Your task to perform on an android device: change your default location settings in chrome Image 0: 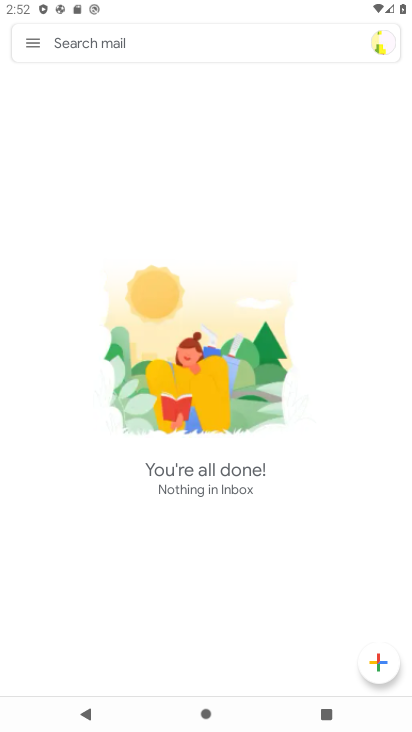
Step 0: press home button
Your task to perform on an android device: change your default location settings in chrome Image 1: 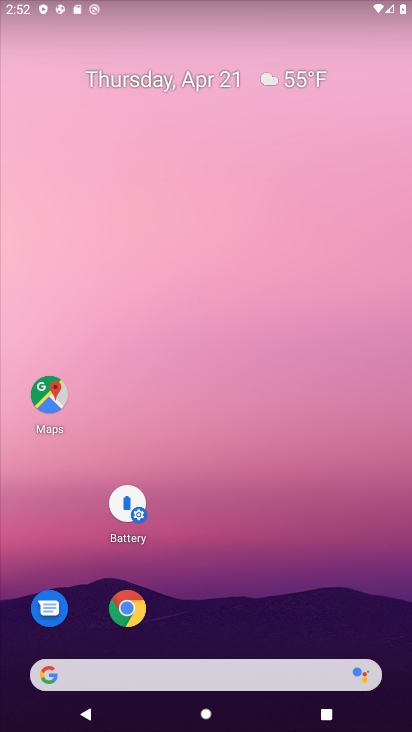
Step 1: drag from (277, 554) to (272, 124)
Your task to perform on an android device: change your default location settings in chrome Image 2: 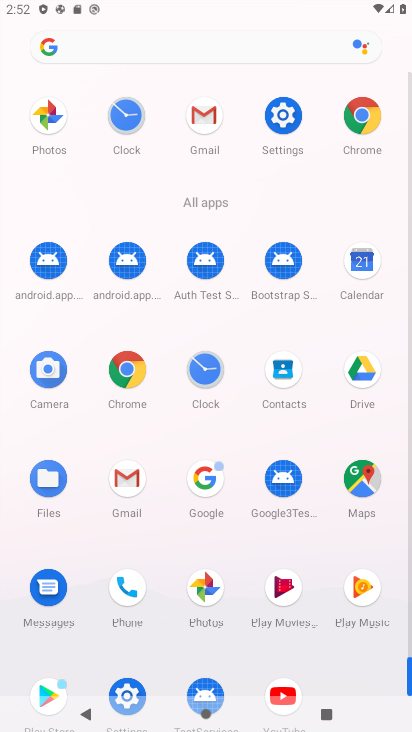
Step 2: click (365, 112)
Your task to perform on an android device: change your default location settings in chrome Image 3: 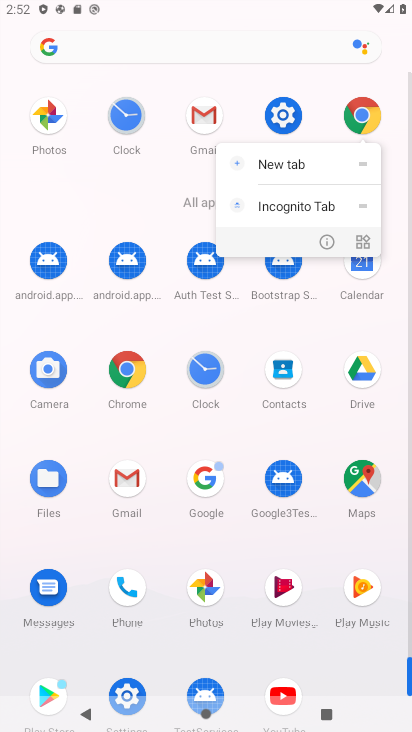
Step 3: click (365, 111)
Your task to perform on an android device: change your default location settings in chrome Image 4: 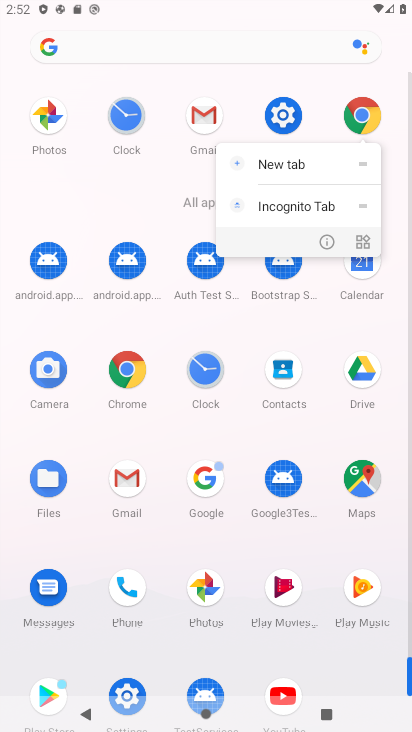
Step 4: click (365, 111)
Your task to perform on an android device: change your default location settings in chrome Image 5: 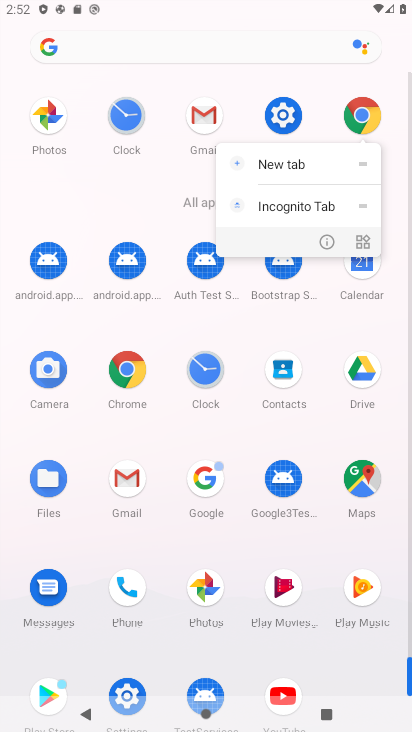
Step 5: click (365, 111)
Your task to perform on an android device: change your default location settings in chrome Image 6: 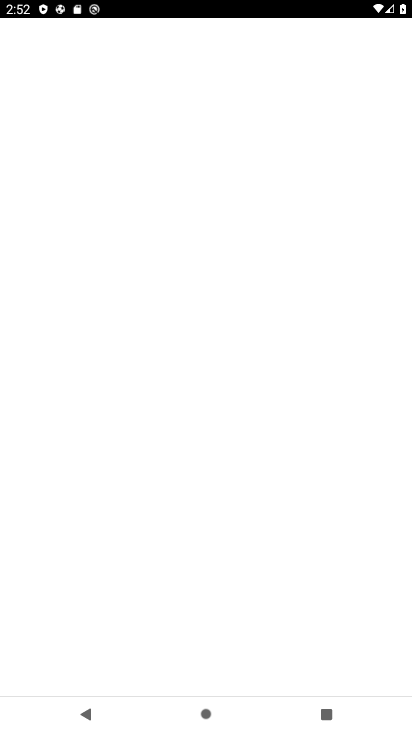
Step 6: click (365, 121)
Your task to perform on an android device: change your default location settings in chrome Image 7: 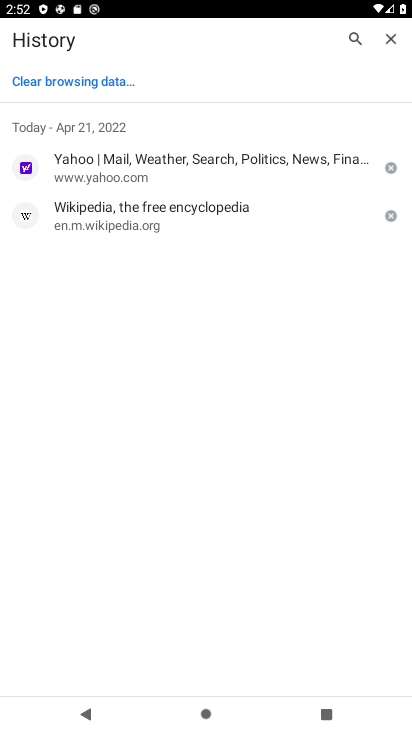
Step 7: click (384, 48)
Your task to perform on an android device: change your default location settings in chrome Image 8: 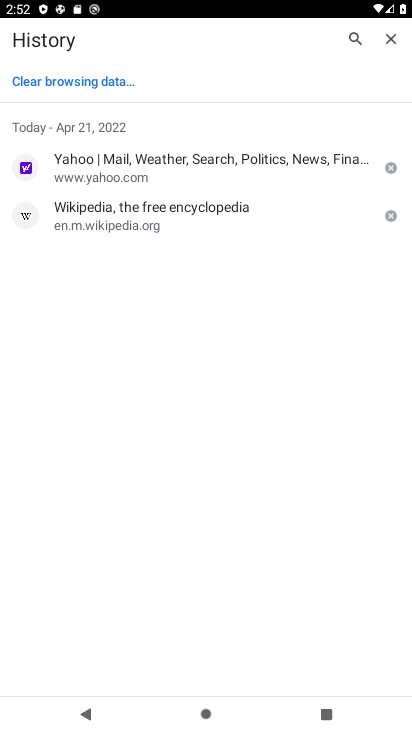
Step 8: click (393, 40)
Your task to perform on an android device: change your default location settings in chrome Image 9: 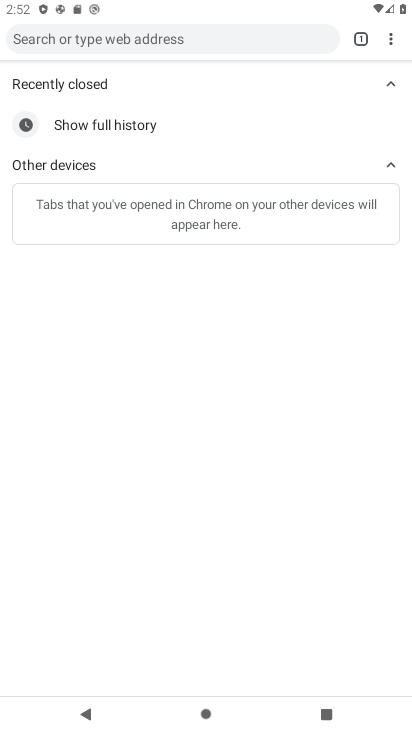
Step 9: click (392, 43)
Your task to perform on an android device: change your default location settings in chrome Image 10: 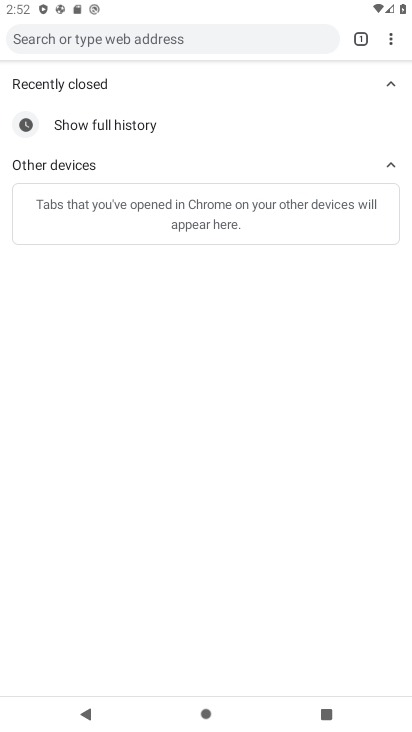
Step 10: drag from (389, 48) to (289, 335)
Your task to perform on an android device: change your default location settings in chrome Image 11: 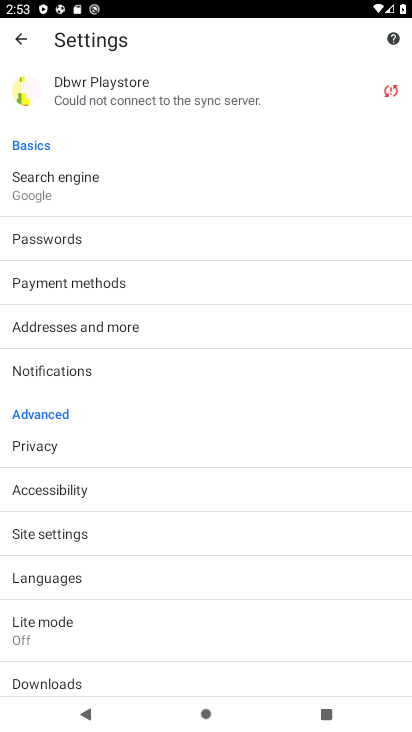
Step 11: drag from (232, 636) to (195, 154)
Your task to perform on an android device: change your default location settings in chrome Image 12: 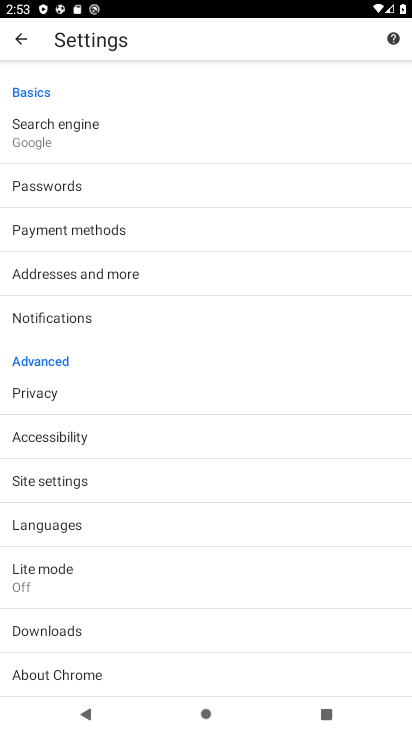
Step 12: drag from (93, 629) to (84, 248)
Your task to perform on an android device: change your default location settings in chrome Image 13: 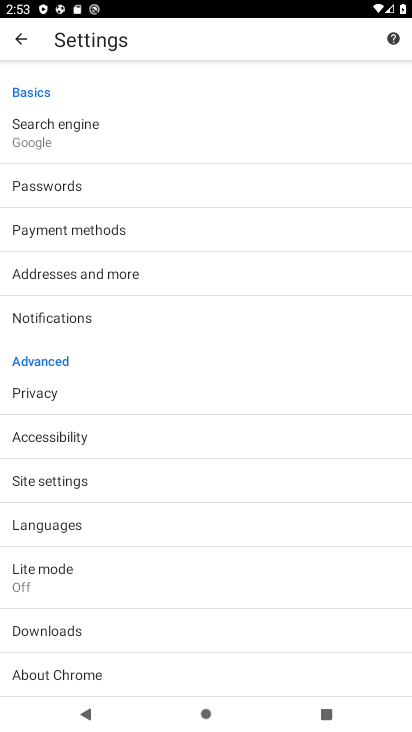
Step 13: click (87, 478)
Your task to perform on an android device: change your default location settings in chrome Image 14: 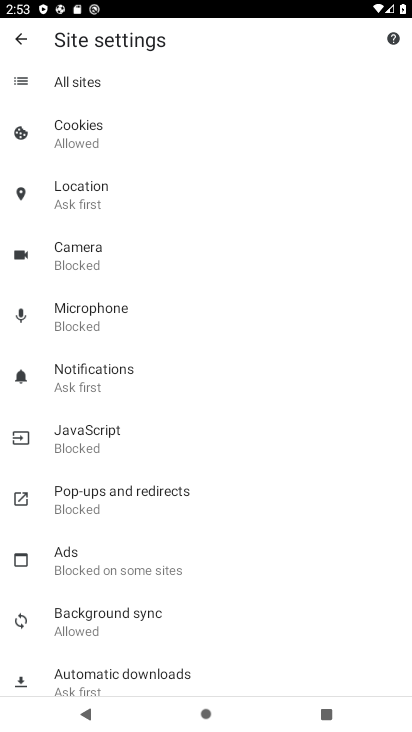
Step 14: drag from (172, 618) to (107, 227)
Your task to perform on an android device: change your default location settings in chrome Image 15: 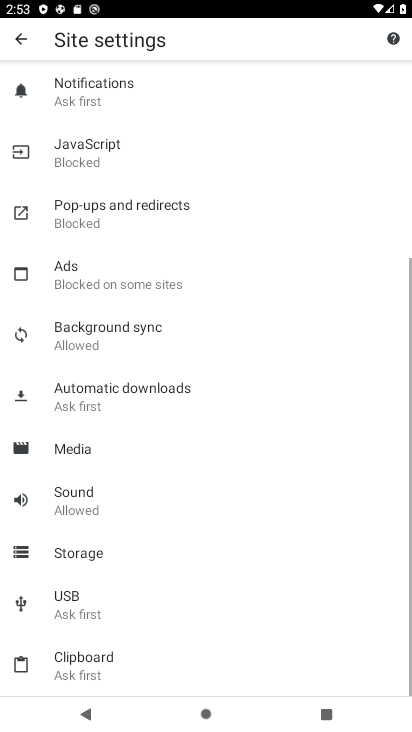
Step 15: drag from (112, 168) to (147, 565)
Your task to perform on an android device: change your default location settings in chrome Image 16: 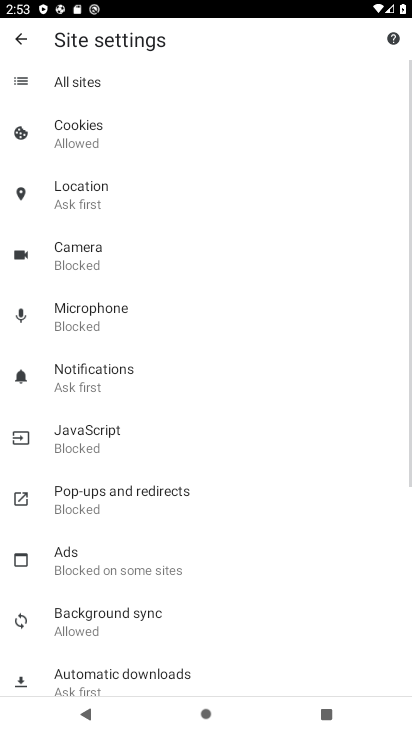
Step 16: click (85, 216)
Your task to perform on an android device: change your default location settings in chrome Image 17: 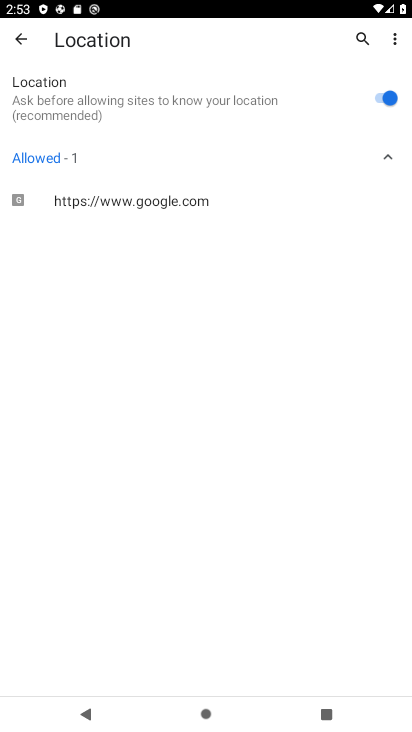
Step 17: click (381, 94)
Your task to perform on an android device: change your default location settings in chrome Image 18: 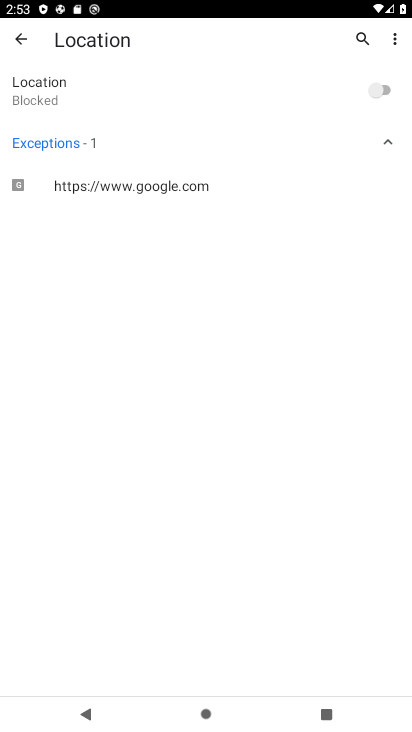
Step 18: task complete